Your task to perform on an android device: toggle improve location accuracy Image 0: 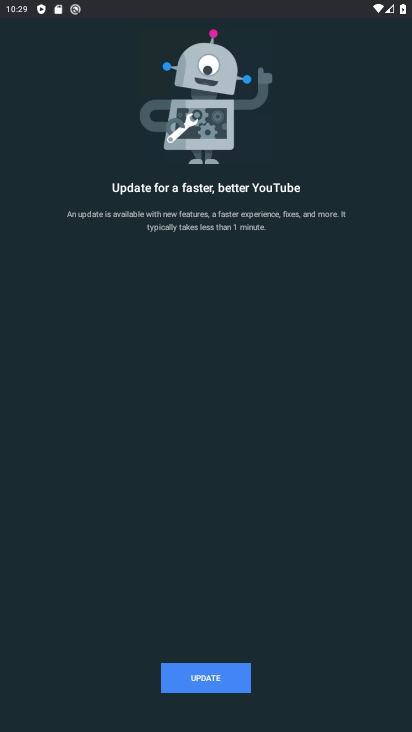
Step 0: press home button
Your task to perform on an android device: toggle improve location accuracy Image 1: 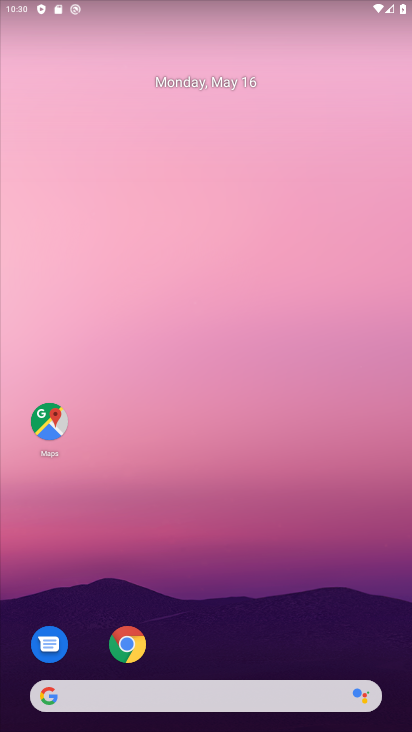
Step 1: drag from (221, 727) to (220, 184)
Your task to perform on an android device: toggle improve location accuracy Image 2: 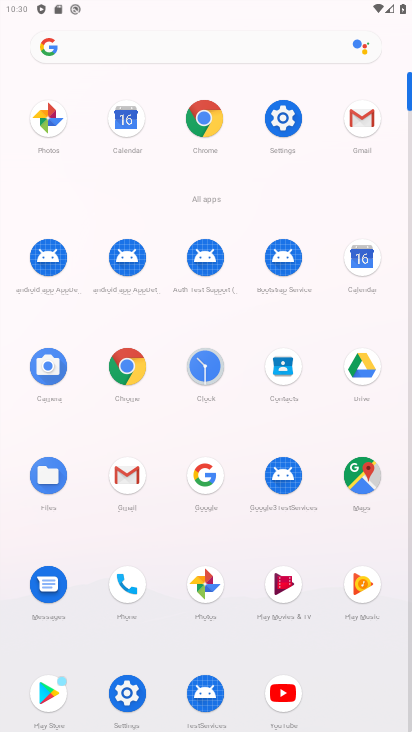
Step 2: click (290, 117)
Your task to perform on an android device: toggle improve location accuracy Image 3: 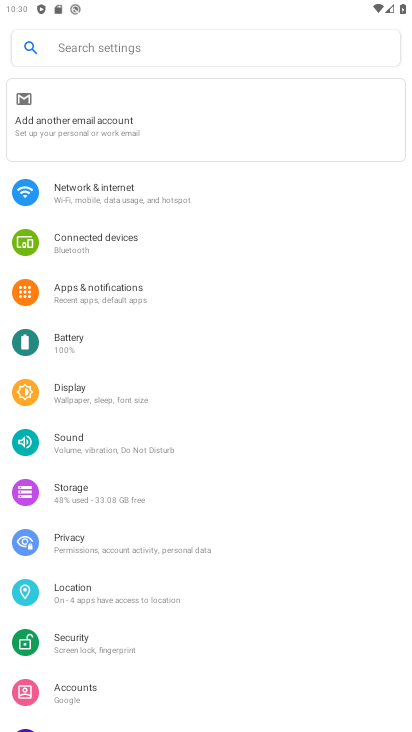
Step 3: click (72, 584)
Your task to perform on an android device: toggle improve location accuracy Image 4: 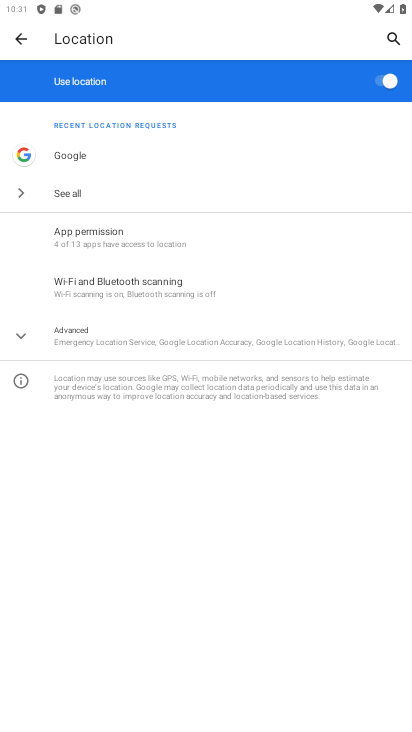
Step 4: click (83, 328)
Your task to perform on an android device: toggle improve location accuracy Image 5: 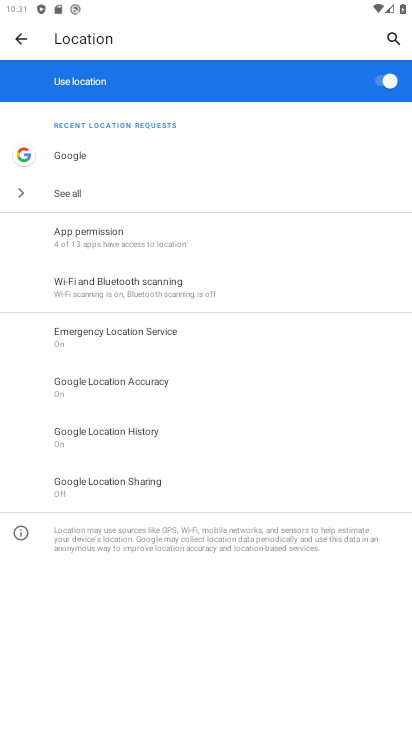
Step 5: click (114, 379)
Your task to perform on an android device: toggle improve location accuracy Image 6: 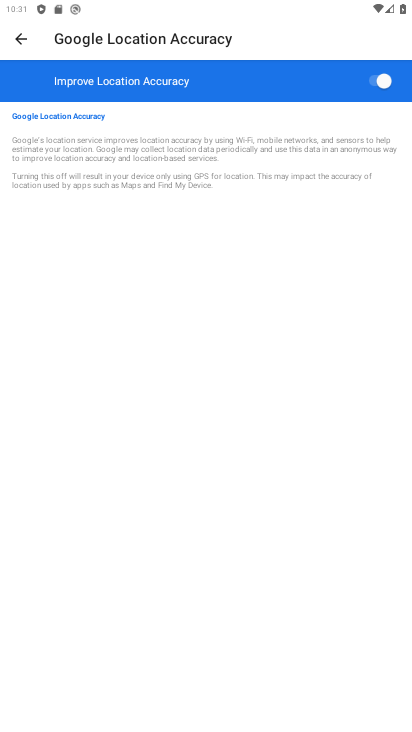
Step 6: click (371, 85)
Your task to perform on an android device: toggle improve location accuracy Image 7: 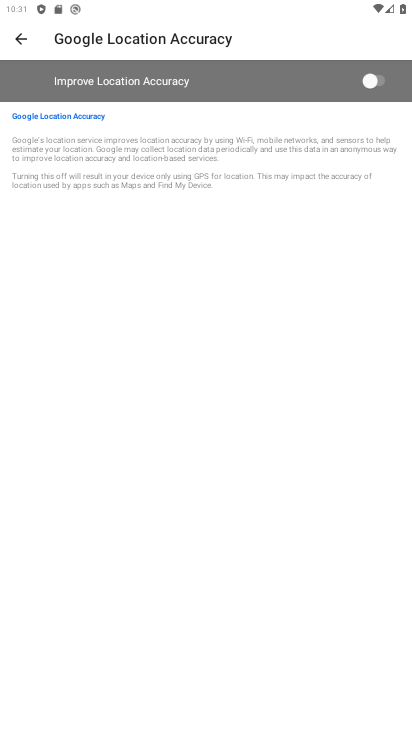
Step 7: task complete